Your task to perform on an android device: delete a single message in the gmail app Image 0: 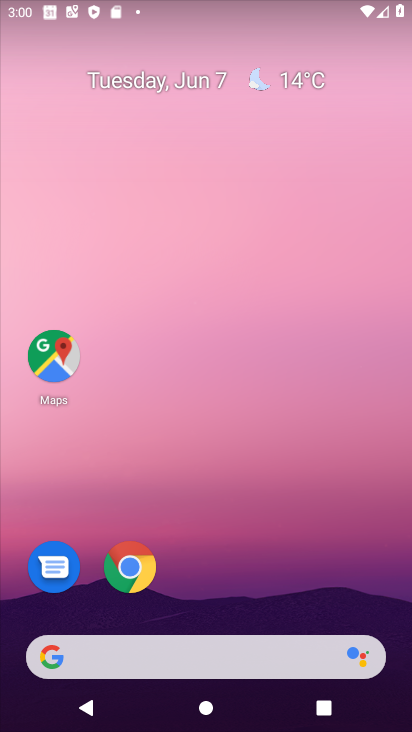
Step 0: drag from (201, 599) to (203, 175)
Your task to perform on an android device: delete a single message in the gmail app Image 1: 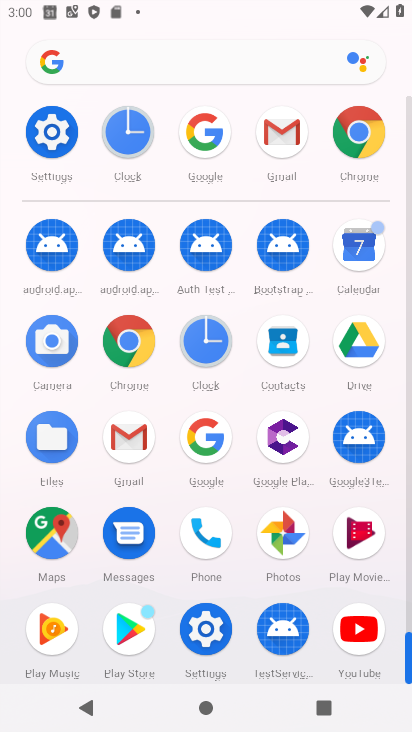
Step 1: click (137, 429)
Your task to perform on an android device: delete a single message in the gmail app Image 2: 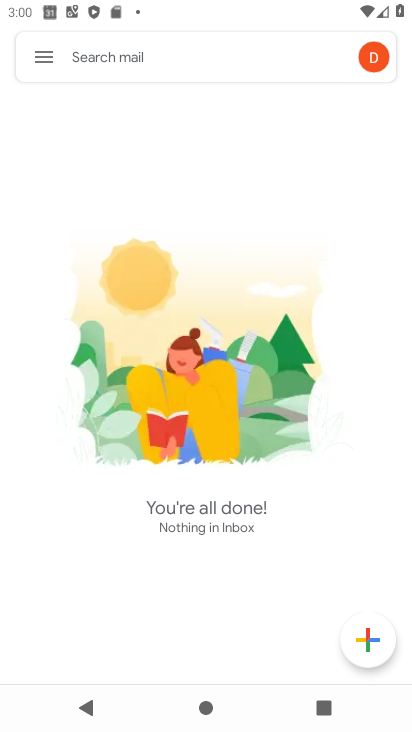
Step 2: click (45, 63)
Your task to perform on an android device: delete a single message in the gmail app Image 3: 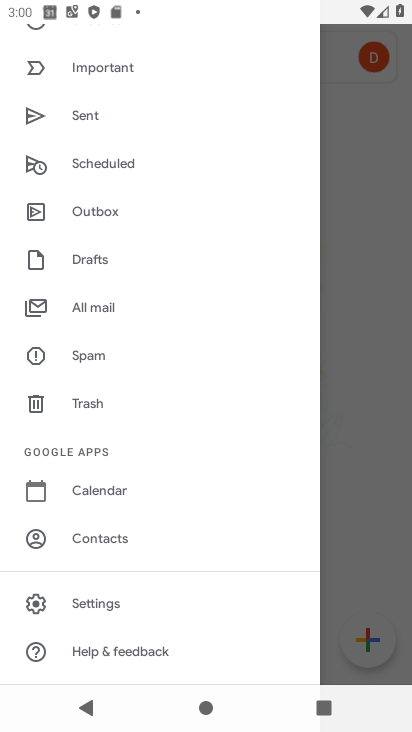
Step 3: click (105, 315)
Your task to perform on an android device: delete a single message in the gmail app Image 4: 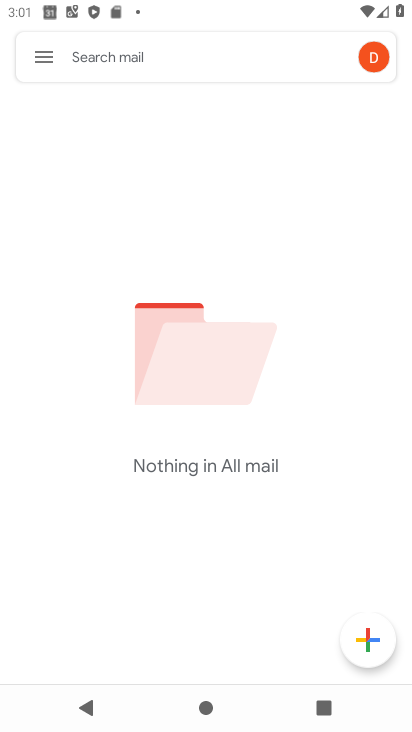
Step 4: click (44, 63)
Your task to perform on an android device: delete a single message in the gmail app Image 5: 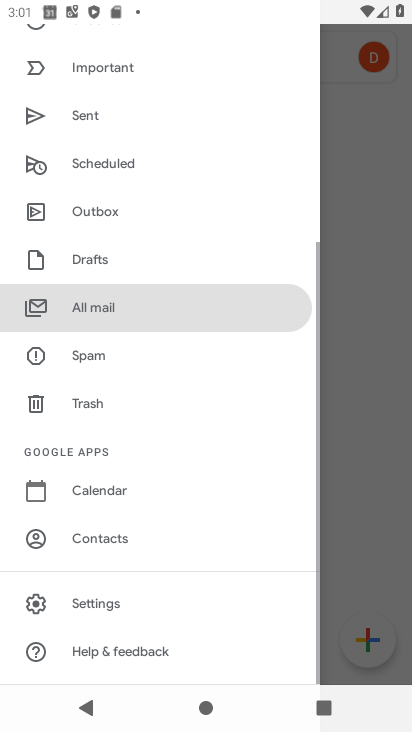
Step 5: click (137, 321)
Your task to perform on an android device: delete a single message in the gmail app Image 6: 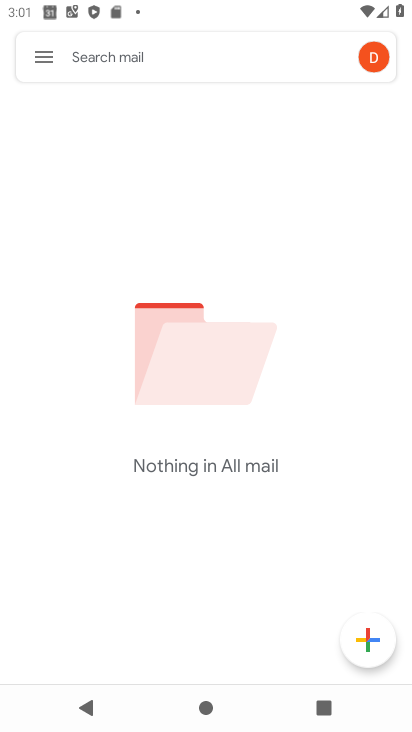
Step 6: task complete